Your task to perform on an android device: Do I have any events today? Image 0: 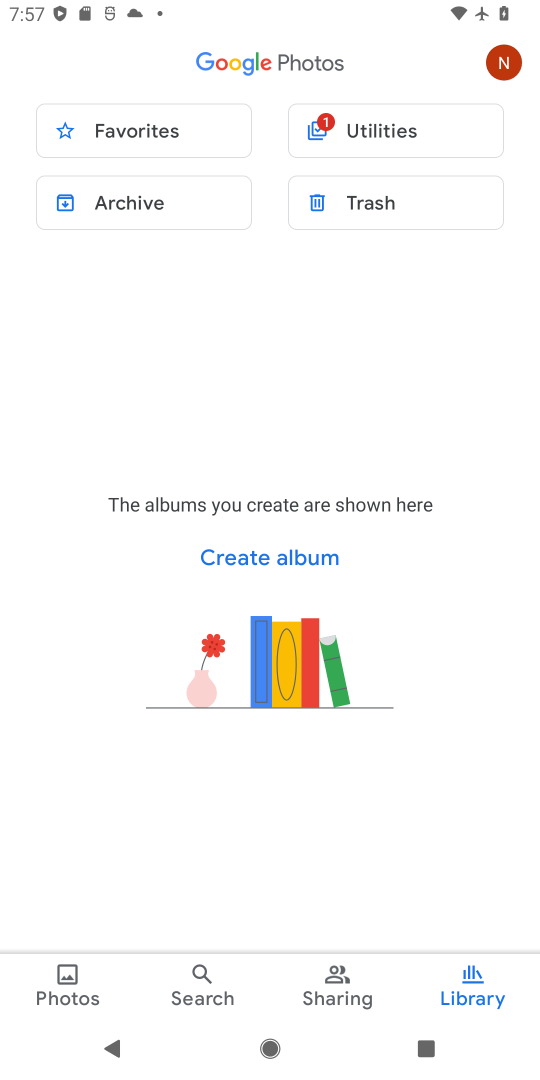
Step 0: press home button
Your task to perform on an android device: Do I have any events today? Image 1: 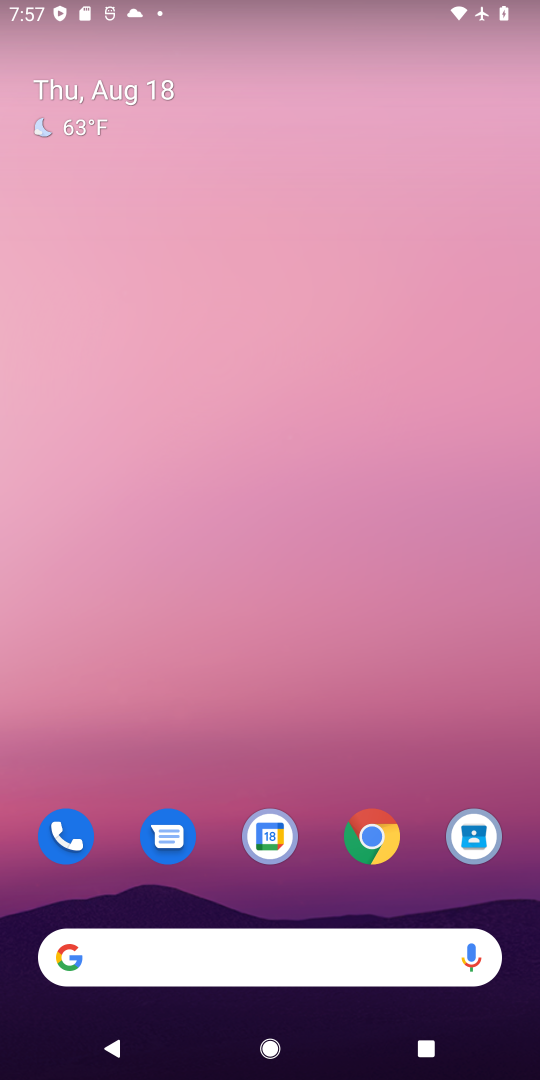
Step 1: click (75, 91)
Your task to perform on an android device: Do I have any events today? Image 2: 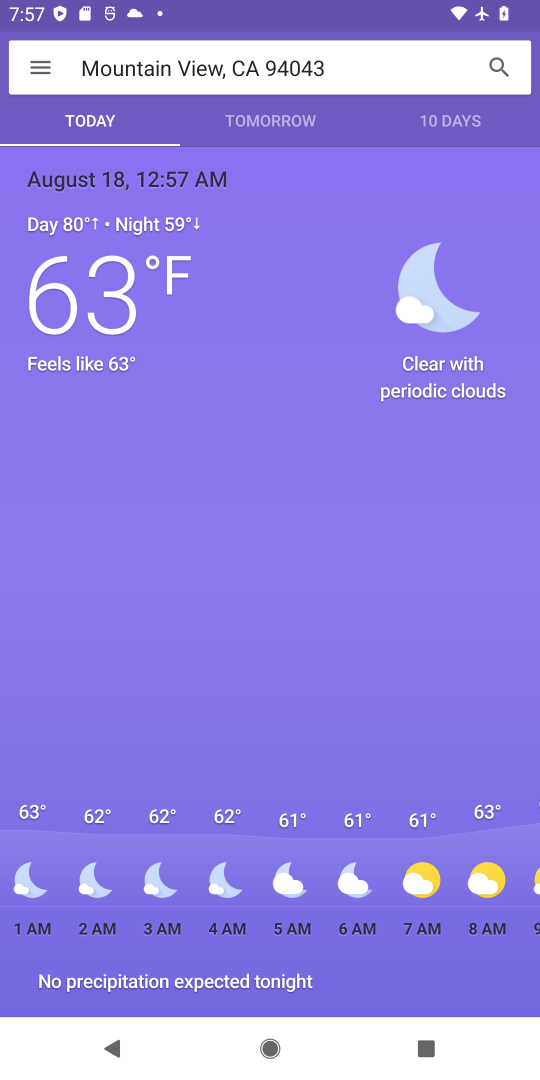
Step 2: press home button
Your task to perform on an android device: Do I have any events today? Image 3: 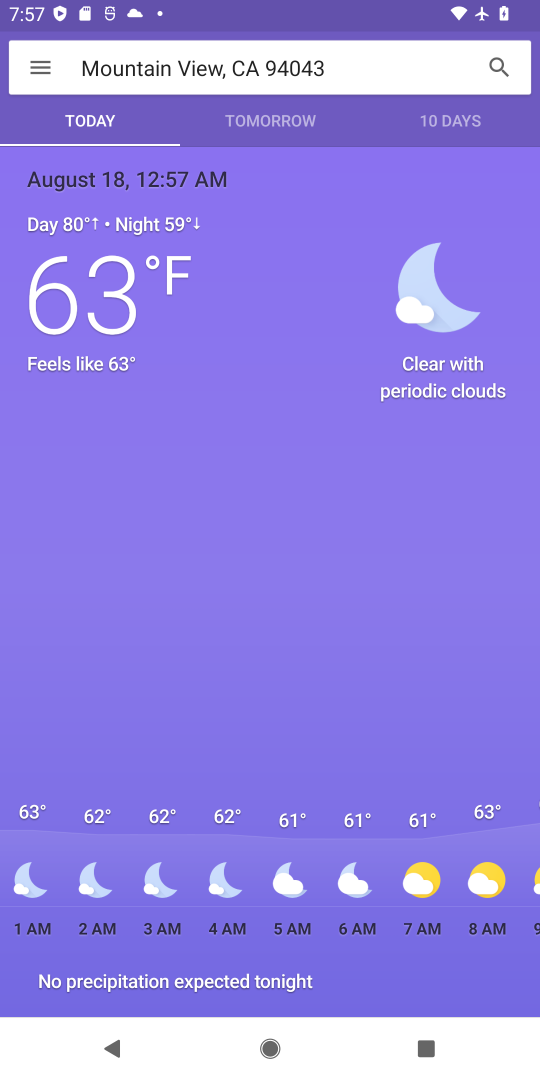
Step 3: press home button
Your task to perform on an android device: Do I have any events today? Image 4: 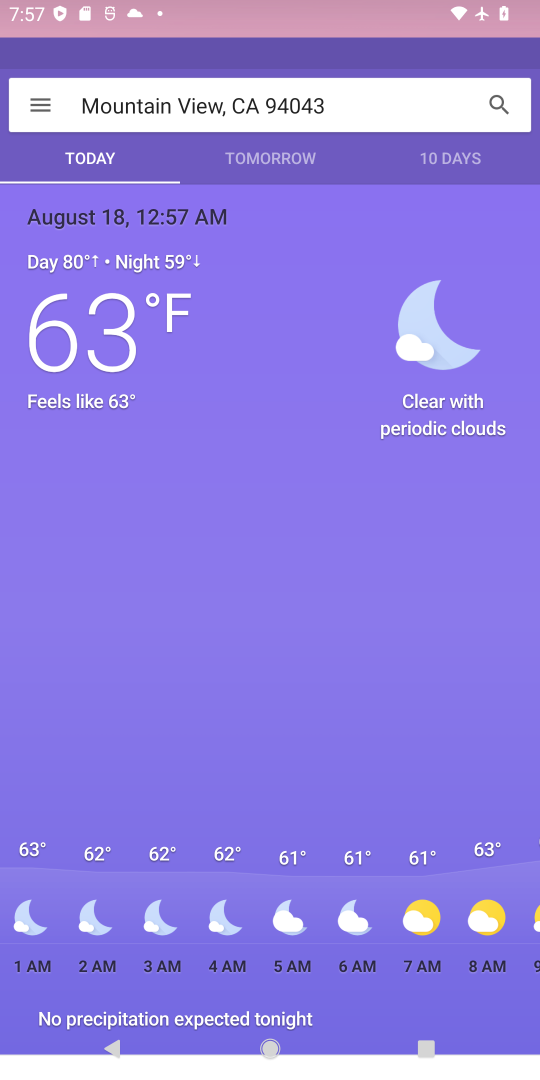
Step 4: press home button
Your task to perform on an android device: Do I have any events today? Image 5: 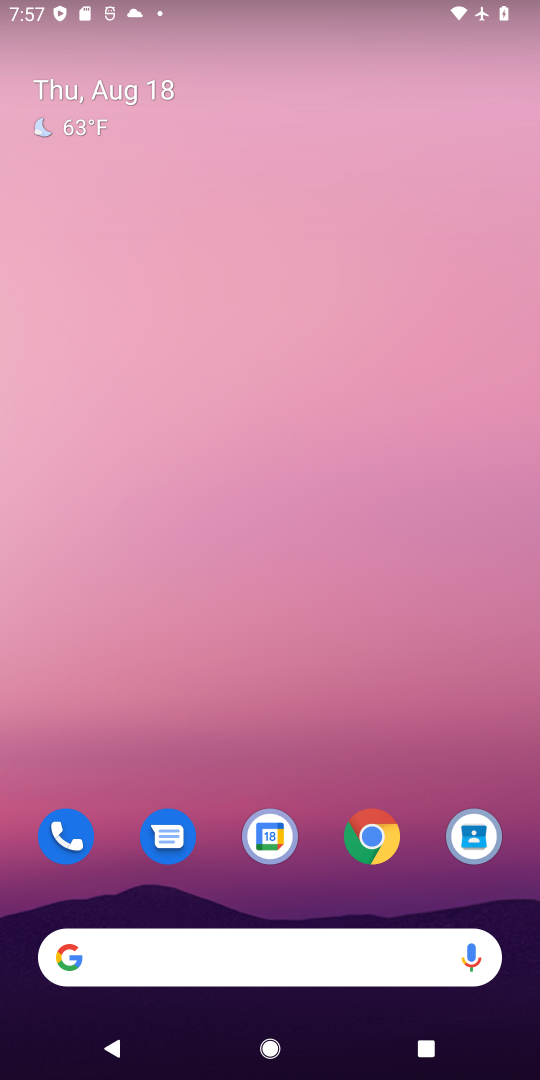
Step 5: drag from (362, 733) to (381, 0)
Your task to perform on an android device: Do I have any events today? Image 6: 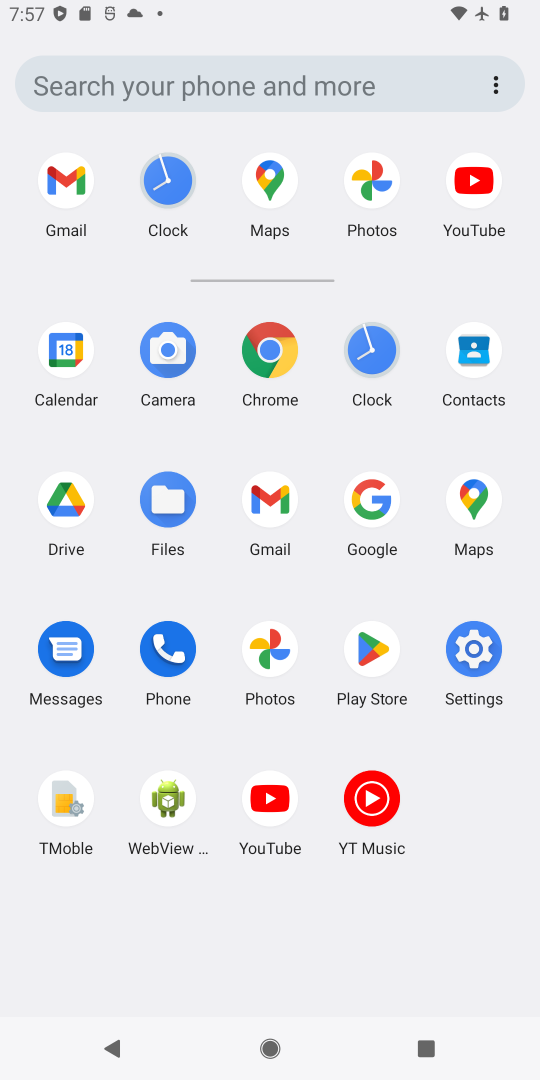
Step 6: click (76, 356)
Your task to perform on an android device: Do I have any events today? Image 7: 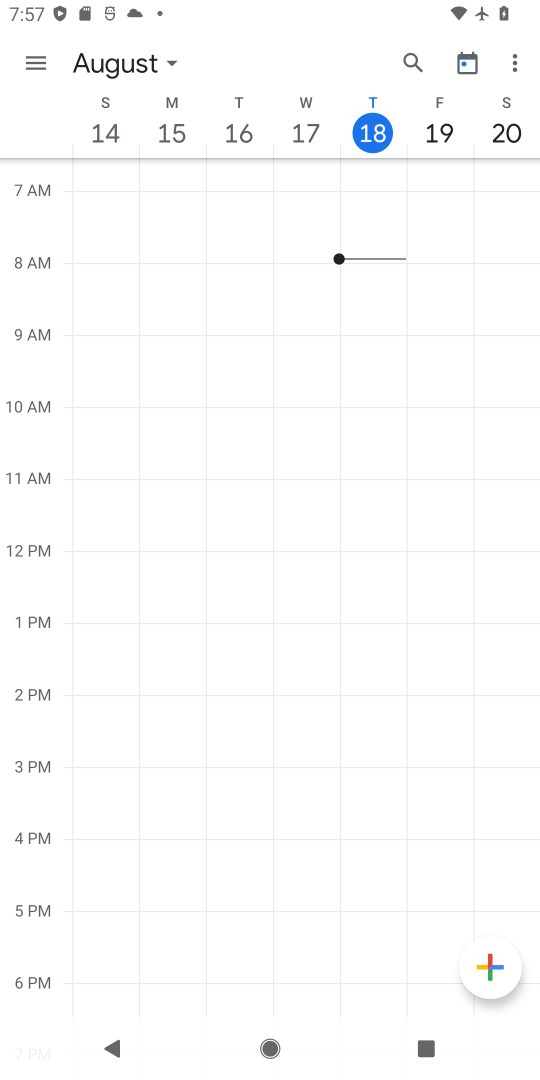
Step 7: click (379, 120)
Your task to perform on an android device: Do I have any events today? Image 8: 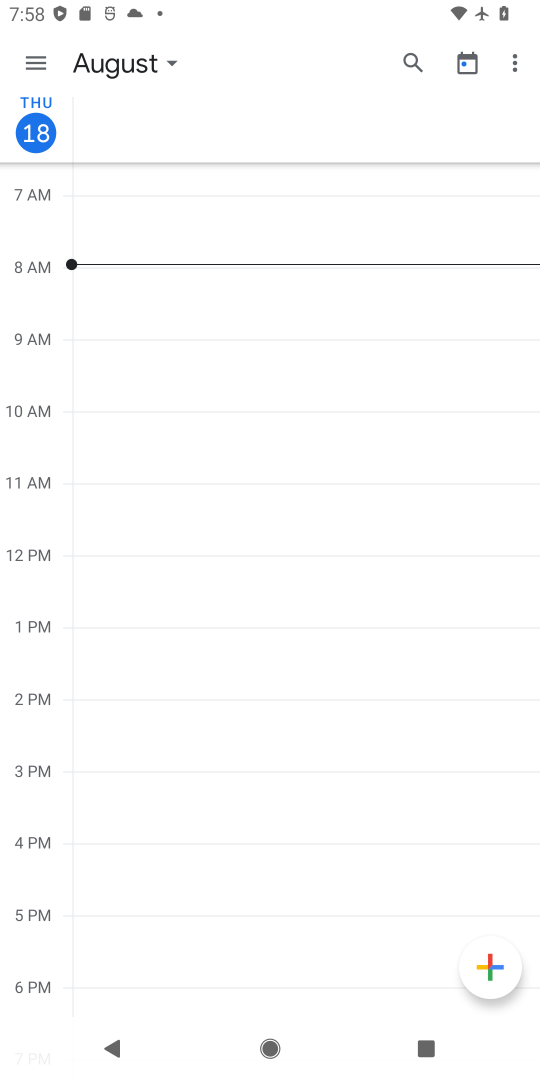
Step 8: task complete